Your task to perform on an android device: search for starred emails in the gmail app Image 0: 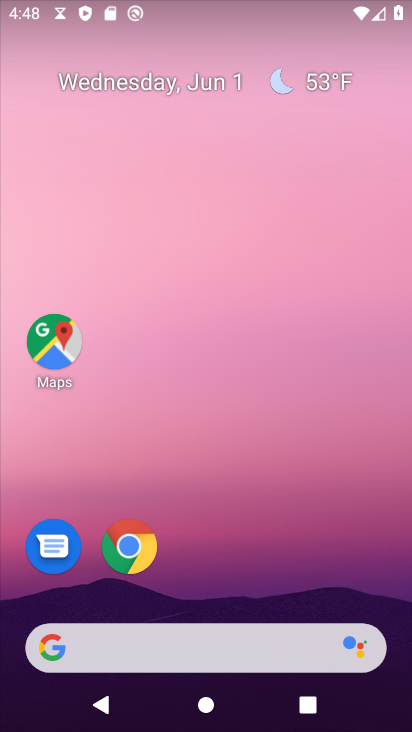
Step 0: drag from (304, 551) to (215, 31)
Your task to perform on an android device: search for starred emails in the gmail app Image 1: 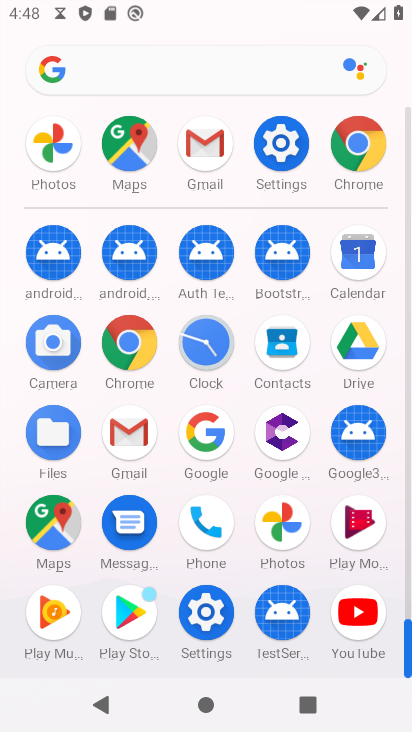
Step 1: drag from (2, 582) to (1, 221)
Your task to perform on an android device: search for starred emails in the gmail app Image 2: 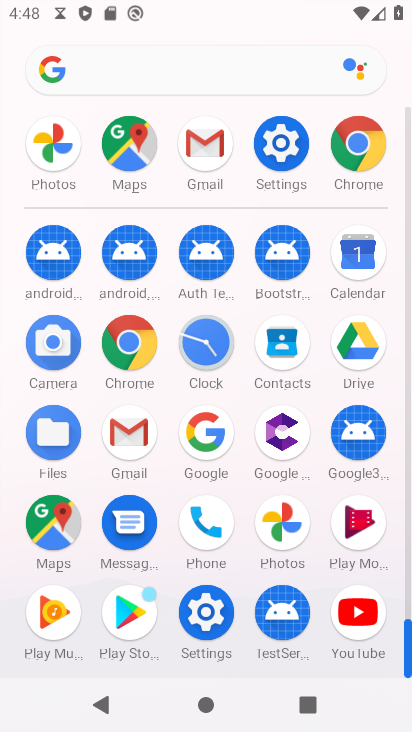
Step 2: click (123, 426)
Your task to perform on an android device: search for starred emails in the gmail app Image 3: 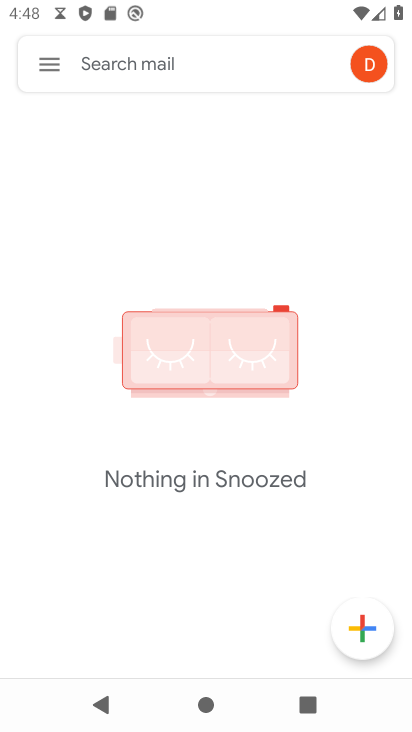
Step 3: click (42, 54)
Your task to perform on an android device: search for starred emails in the gmail app Image 4: 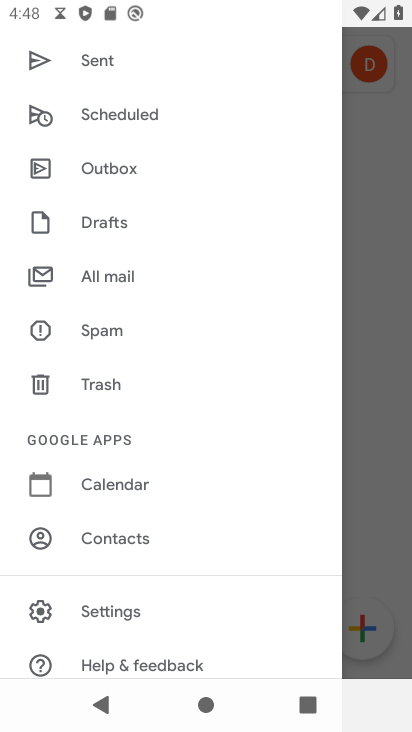
Step 4: drag from (153, 117) to (217, 545)
Your task to perform on an android device: search for starred emails in the gmail app Image 5: 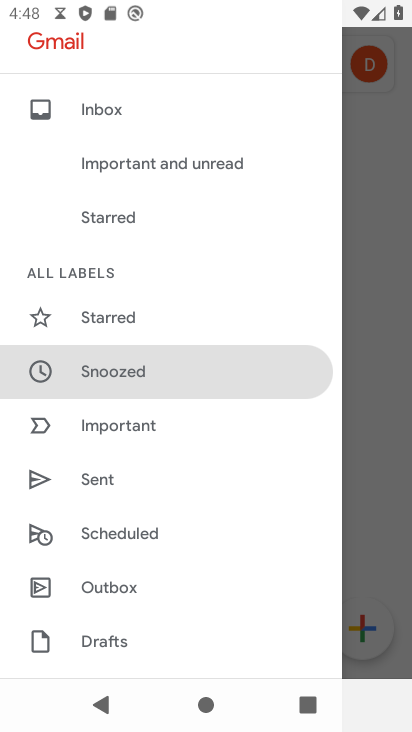
Step 5: click (129, 310)
Your task to perform on an android device: search for starred emails in the gmail app Image 6: 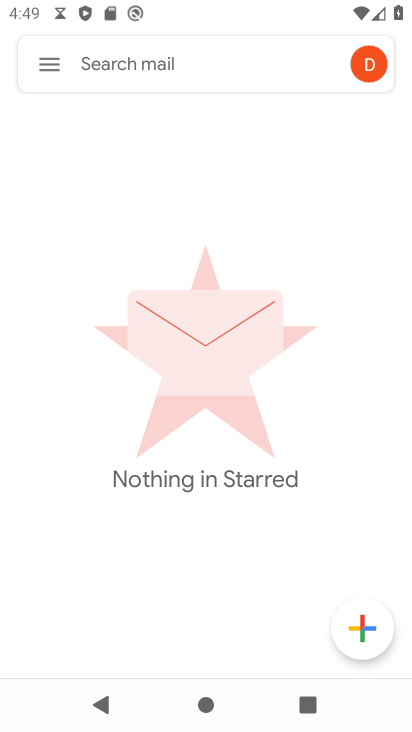
Step 6: task complete